Your task to perform on an android device: Open Google Chrome and click the shortcut for Amazon.com Image 0: 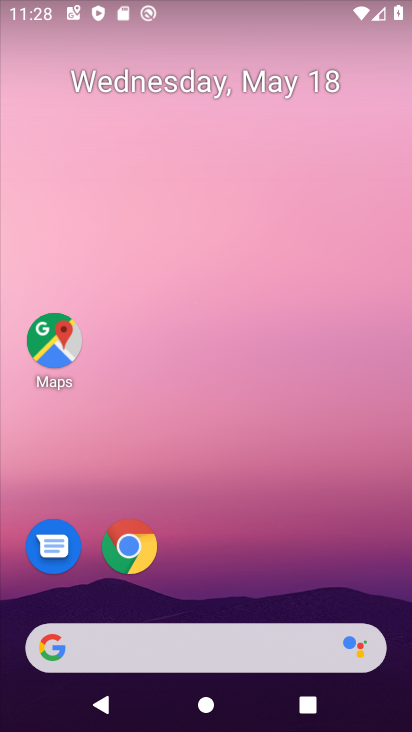
Step 0: click (132, 549)
Your task to perform on an android device: Open Google Chrome and click the shortcut for Amazon.com Image 1: 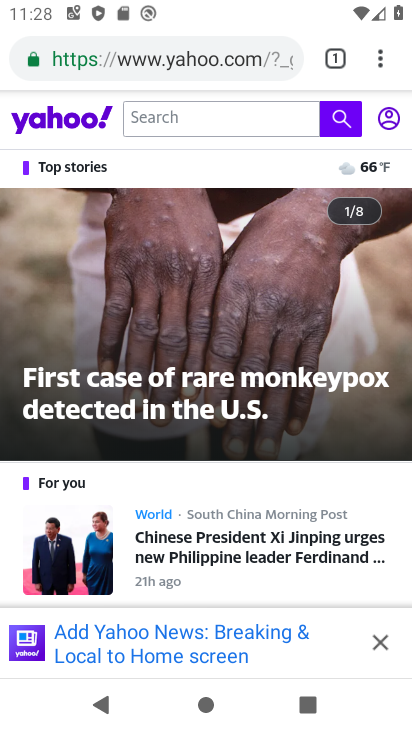
Step 1: press back button
Your task to perform on an android device: Open Google Chrome and click the shortcut for Amazon.com Image 2: 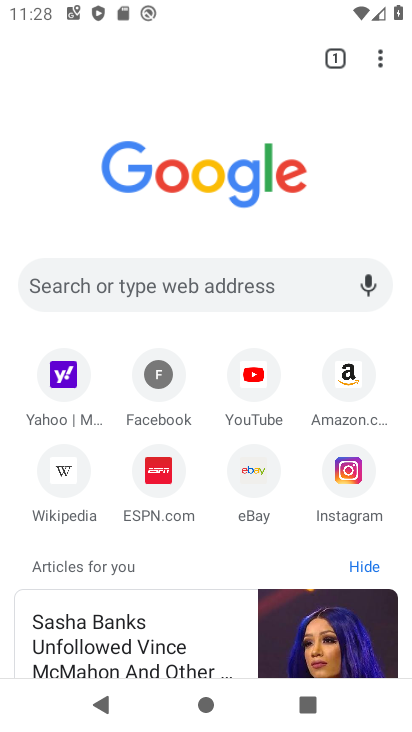
Step 2: click (360, 371)
Your task to perform on an android device: Open Google Chrome and click the shortcut for Amazon.com Image 3: 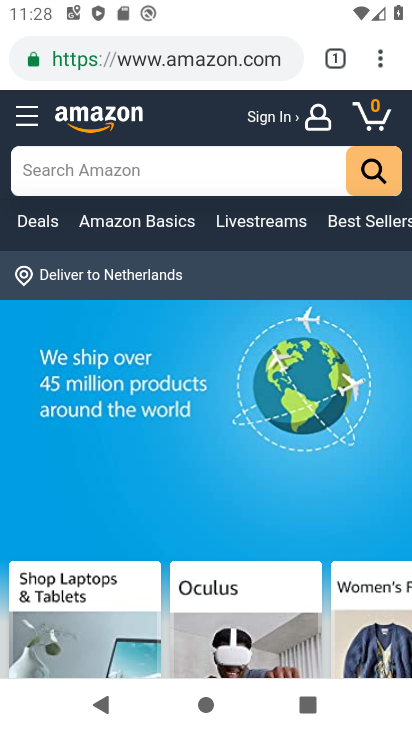
Step 3: task complete